Your task to perform on an android device: open wifi settings Image 0: 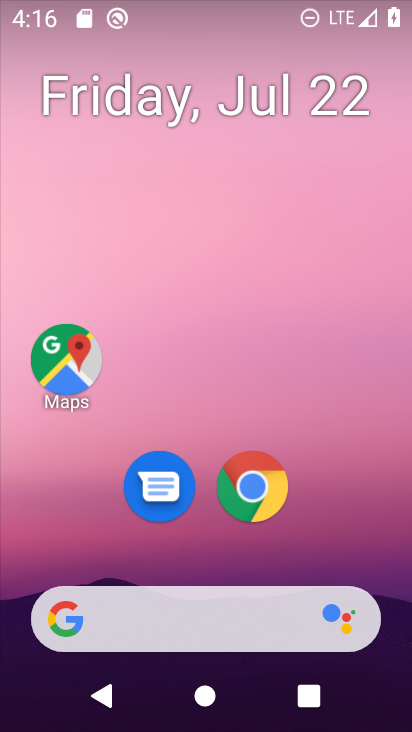
Step 0: drag from (156, 10) to (186, 519)
Your task to perform on an android device: open wifi settings Image 1: 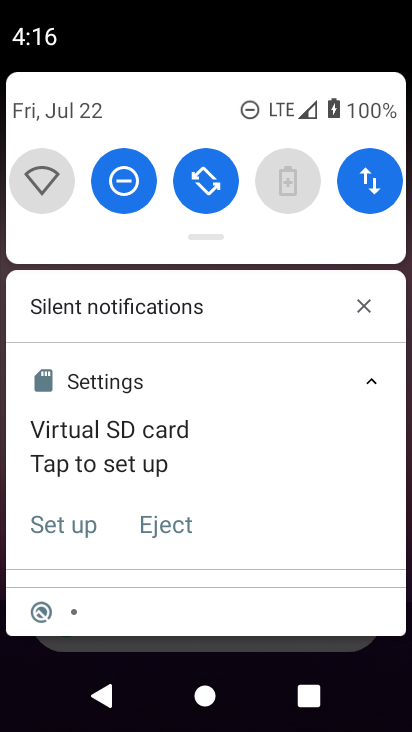
Step 1: click (36, 184)
Your task to perform on an android device: open wifi settings Image 2: 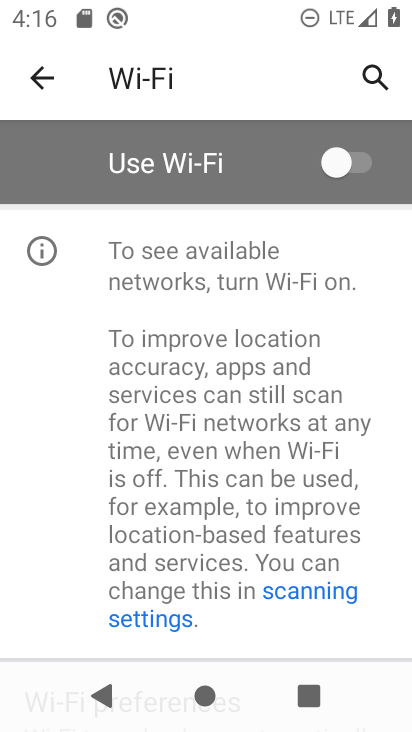
Step 2: task complete